Your task to perform on an android device: Open Google Chrome and click the shortcut for Amazon.com Image 0: 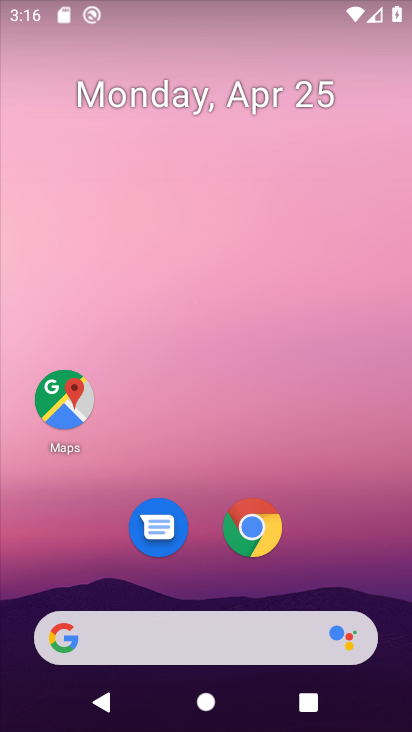
Step 0: click (263, 524)
Your task to perform on an android device: Open Google Chrome and click the shortcut for Amazon.com Image 1: 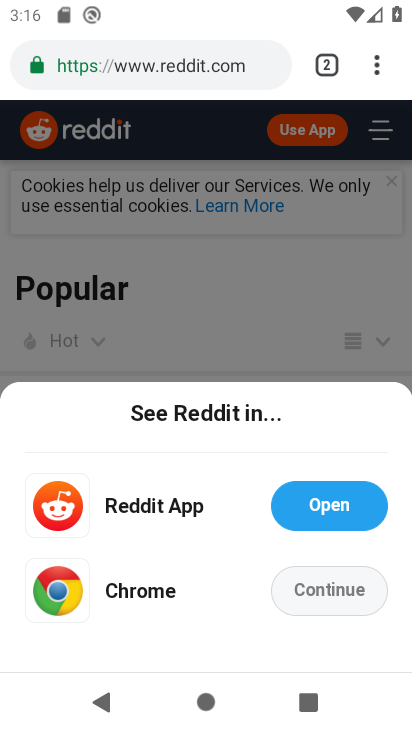
Step 1: click (375, 68)
Your task to perform on an android device: Open Google Chrome and click the shortcut for Amazon.com Image 2: 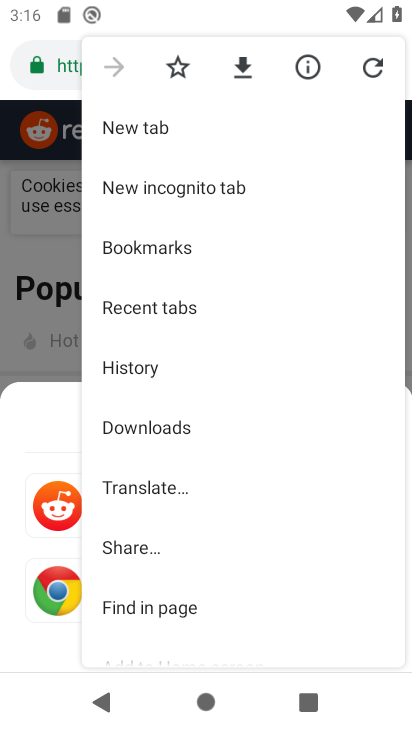
Step 2: click (133, 127)
Your task to perform on an android device: Open Google Chrome and click the shortcut for Amazon.com Image 3: 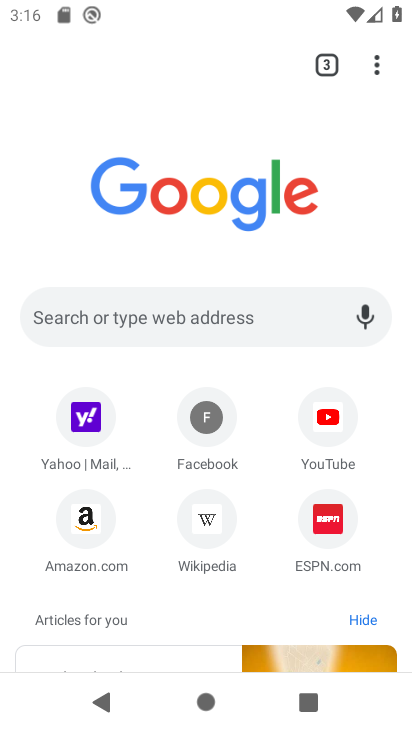
Step 3: click (86, 514)
Your task to perform on an android device: Open Google Chrome and click the shortcut for Amazon.com Image 4: 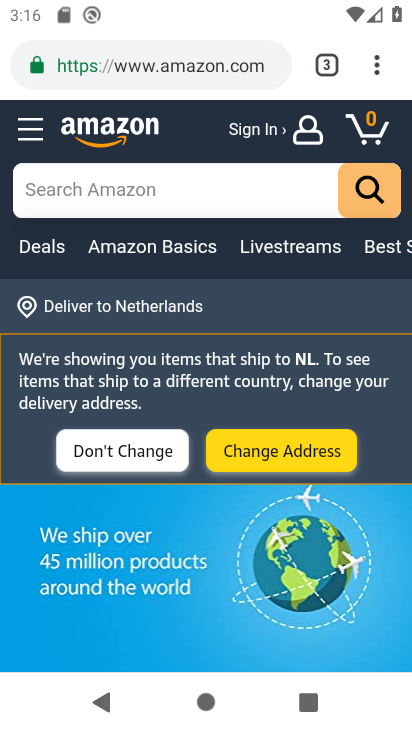
Step 4: task complete